Your task to perform on an android device: find snoozed emails in the gmail app Image 0: 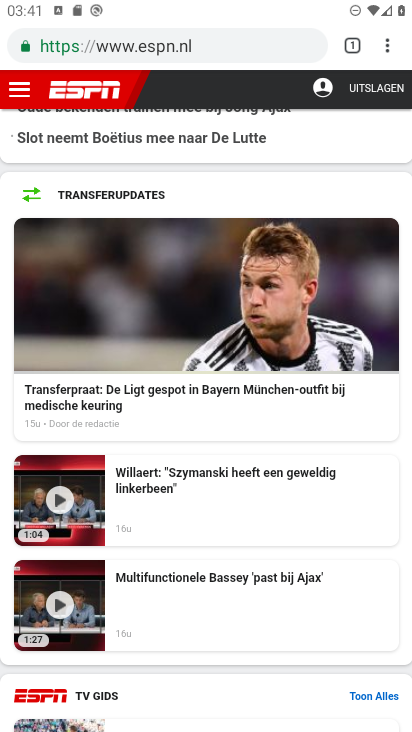
Step 0: press home button
Your task to perform on an android device: find snoozed emails in the gmail app Image 1: 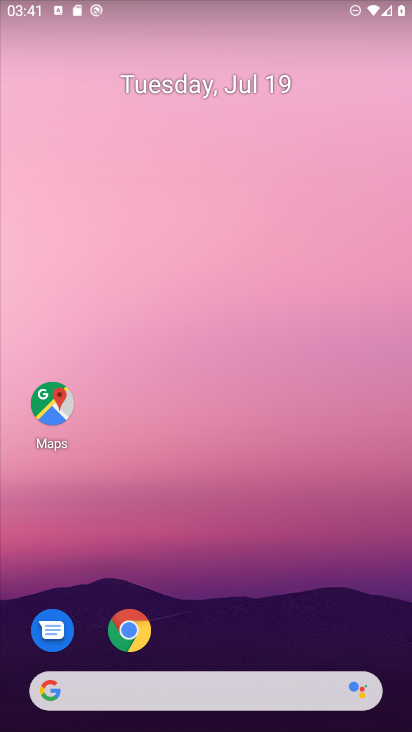
Step 1: drag from (373, 644) to (318, 78)
Your task to perform on an android device: find snoozed emails in the gmail app Image 2: 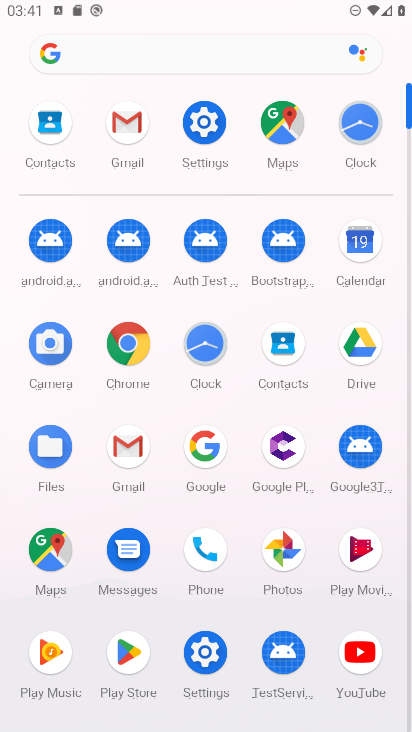
Step 2: click (126, 447)
Your task to perform on an android device: find snoozed emails in the gmail app Image 3: 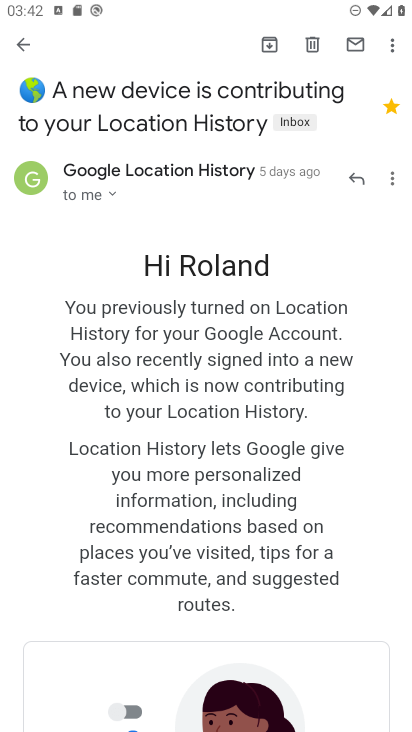
Step 3: press back button
Your task to perform on an android device: find snoozed emails in the gmail app Image 4: 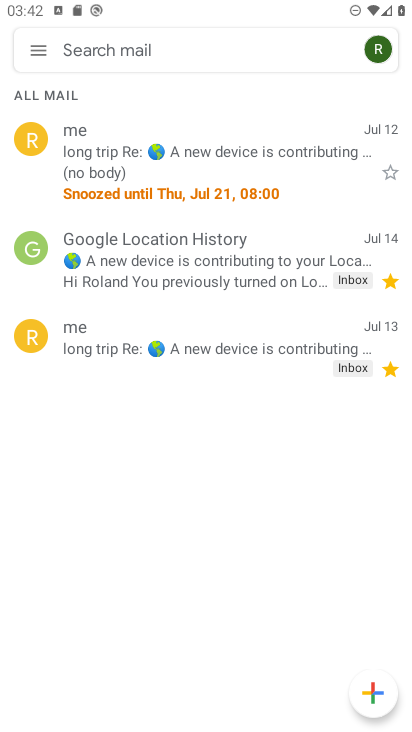
Step 4: click (35, 52)
Your task to perform on an android device: find snoozed emails in the gmail app Image 5: 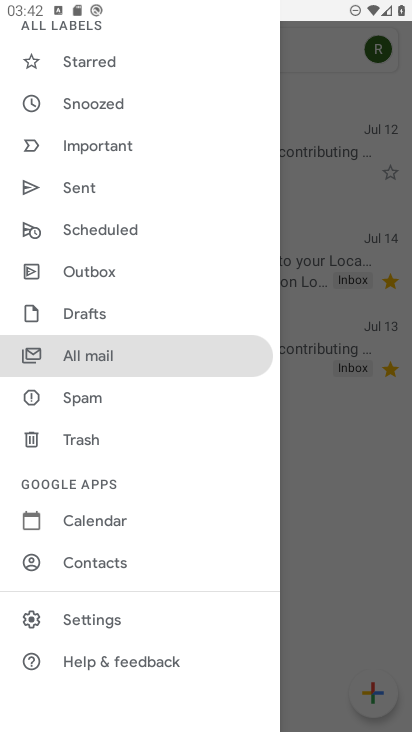
Step 5: click (90, 102)
Your task to perform on an android device: find snoozed emails in the gmail app Image 6: 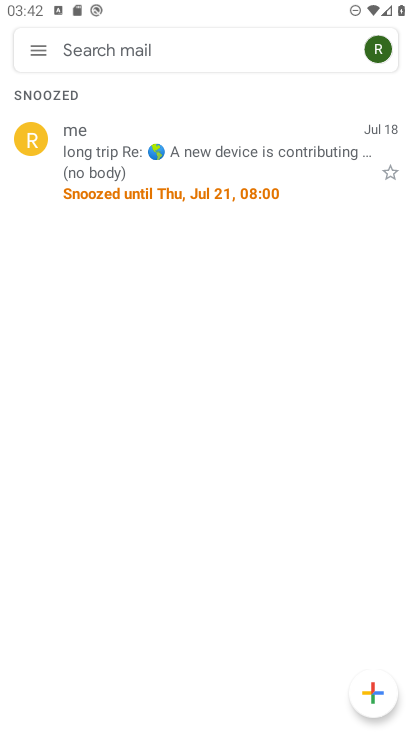
Step 6: task complete